Your task to perform on an android device: Go to wifi settings Image 0: 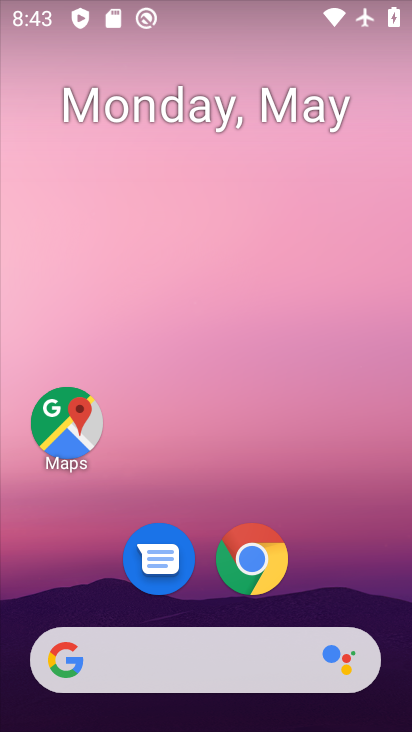
Step 0: drag from (347, 517) to (408, 74)
Your task to perform on an android device: Go to wifi settings Image 1: 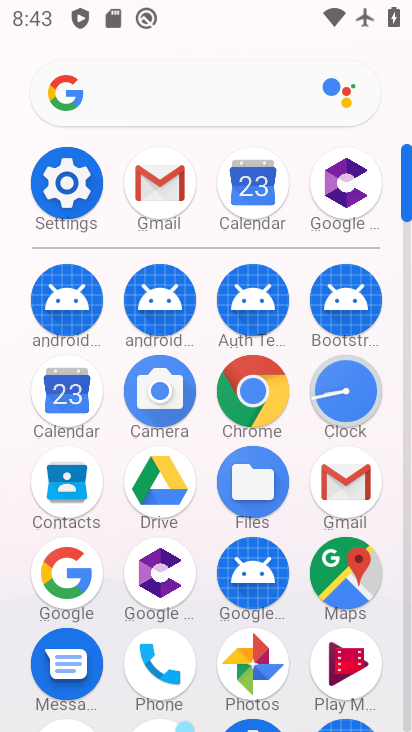
Step 1: click (2, 195)
Your task to perform on an android device: Go to wifi settings Image 2: 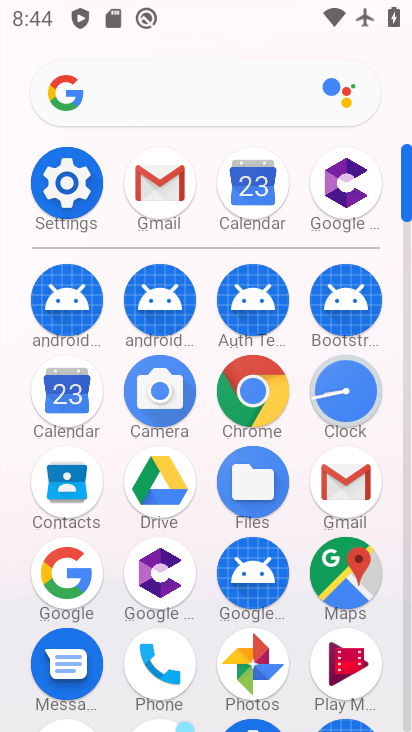
Step 2: click (57, 171)
Your task to perform on an android device: Go to wifi settings Image 3: 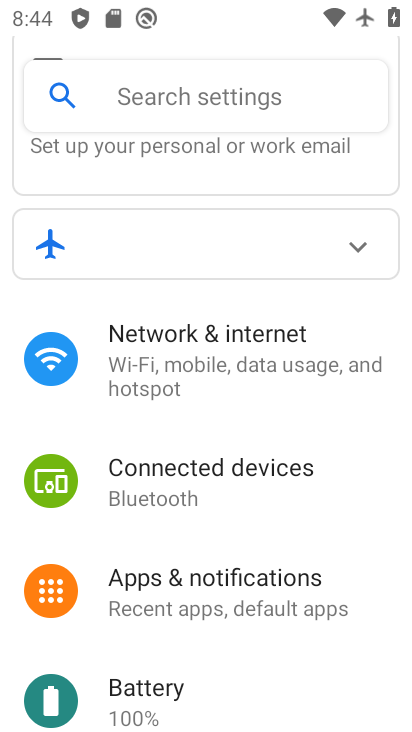
Step 3: click (110, 344)
Your task to perform on an android device: Go to wifi settings Image 4: 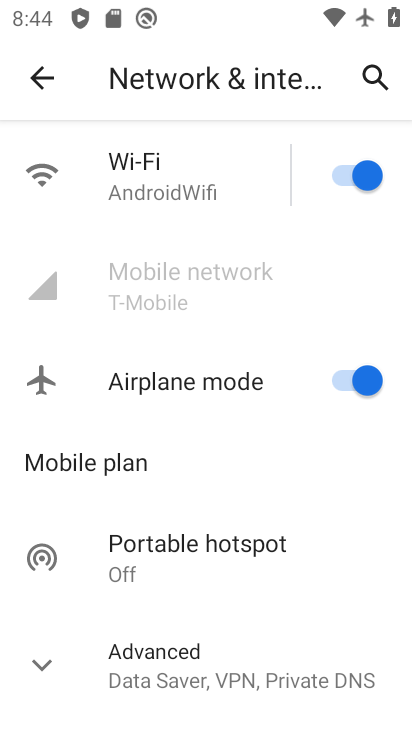
Step 4: click (83, 168)
Your task to perform on an android device: Go to wifi settings Image 5: 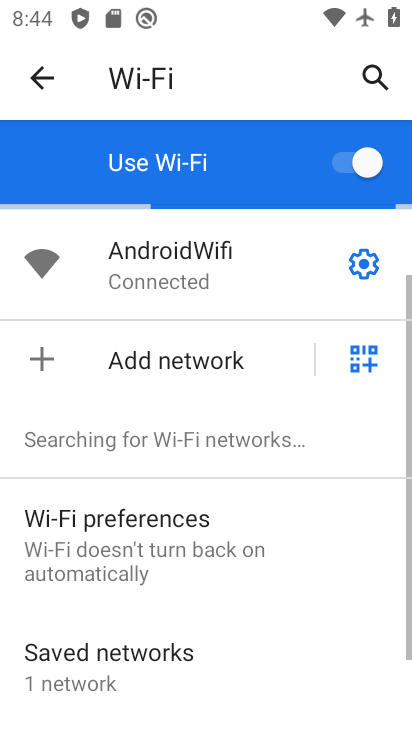
Step 5: task complete